Your task to perform on an android device: Open the web browser Image 0: 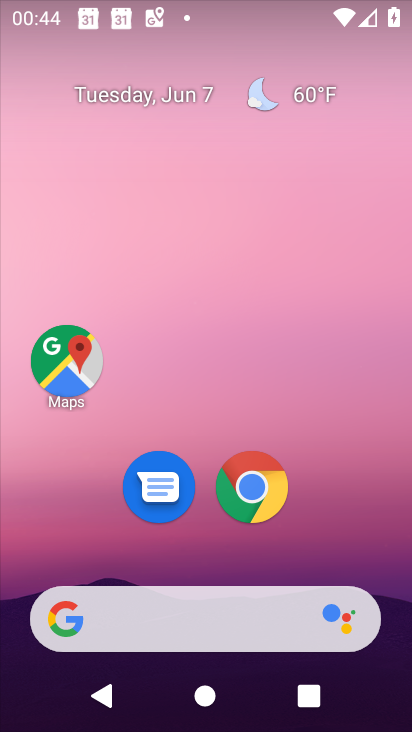
Step 0: click (245, 475)
Your task to perform on an android device: Open the web browser Image 1: 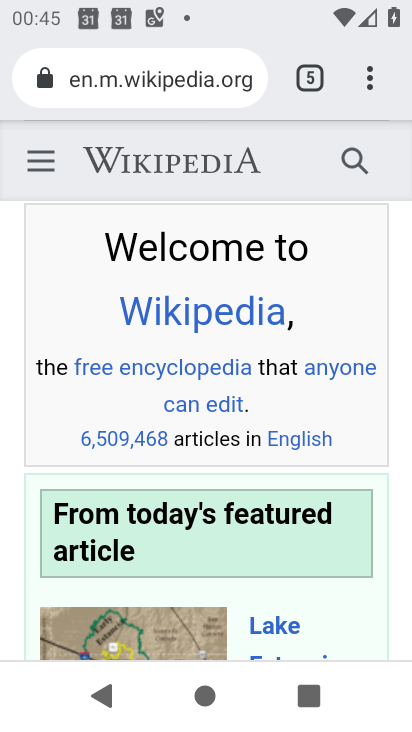
Step 1: task complete